Your task to perform on an android device: turn on the 12-hour format for clock Image 0: 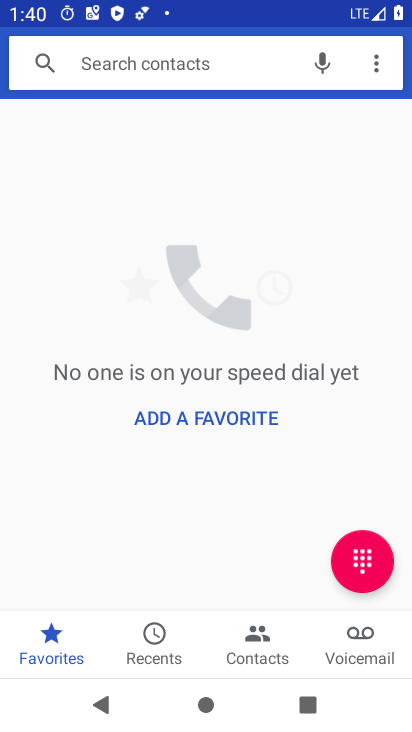
Step 0: press home button
Your task to perform on an android device: turn on the 12-hour format for clock Image 1: 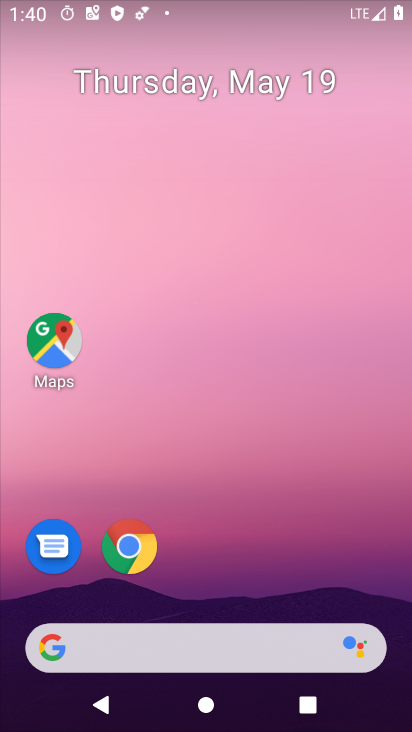
Step 1: drag from (199, 612) to (259, 46)
Your task to perform on an android device: turn on the 12-hour format for clock Image 2: 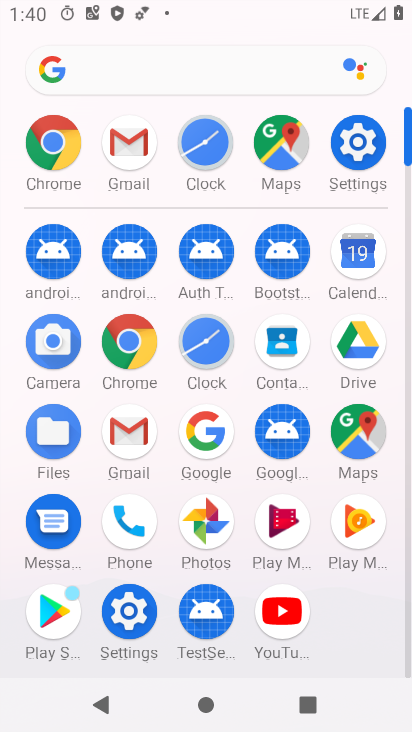
Step 2: click (204, 362)
Your task to perform on an android device: turn on the 12-hour format for clock Image 3: 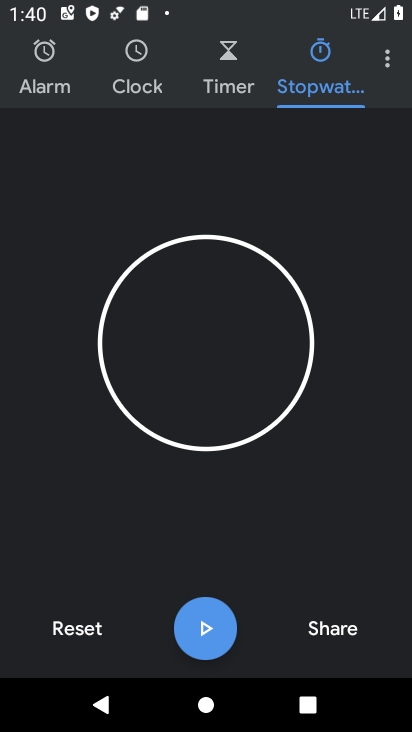
Step 3: click (397, 54)
Your task to perform on an android device: turn on the 12-hour format for clock Image 4: 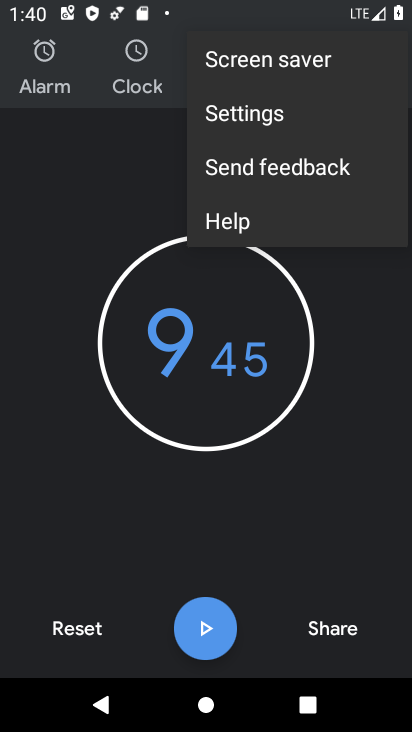
Step 4: click (250, 124)
Your task to perform on an android device: turn on the 12-hour format for clock Image 5: 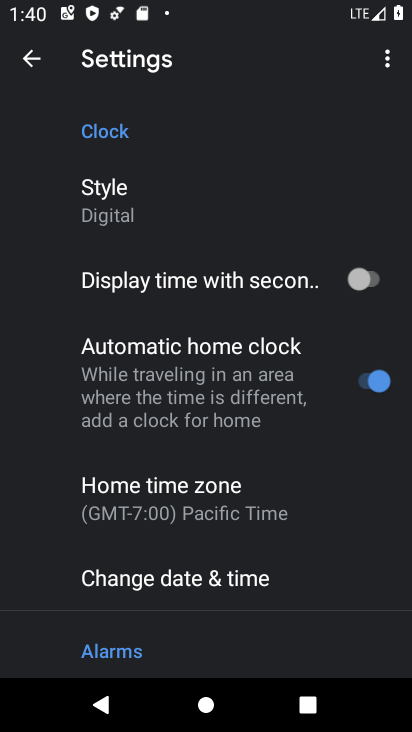
Step 5: task complete